Your task to perform on an android device: Turn on the flashlight Image 0: 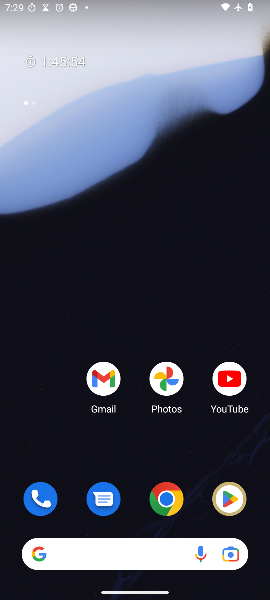
Step 0: drag from (73, 488) to (176, 40)
Your task to perform on an android device: Turn on the flashlight Image 1: 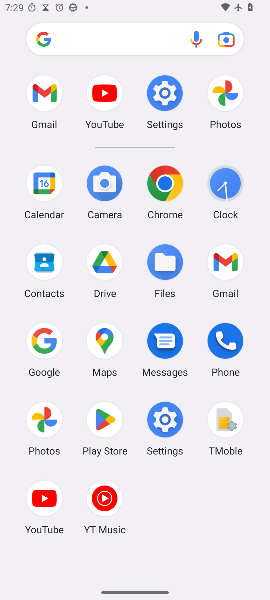
Step 1: click (174, 89)
Your task to perform on an android device: Turn on the flashlight Image 2: 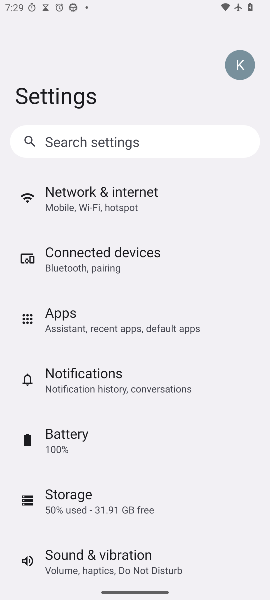
Step 2: task complete